Your task to perform on an android device: What's the weather going to be tomorrow? Image 0: 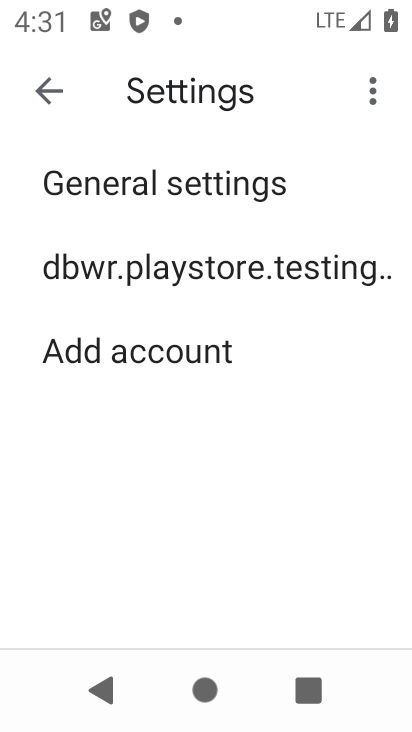
Step 0: press home button
Your task to perform on an android device: What's the weather going to be tomorrow? Image 1: 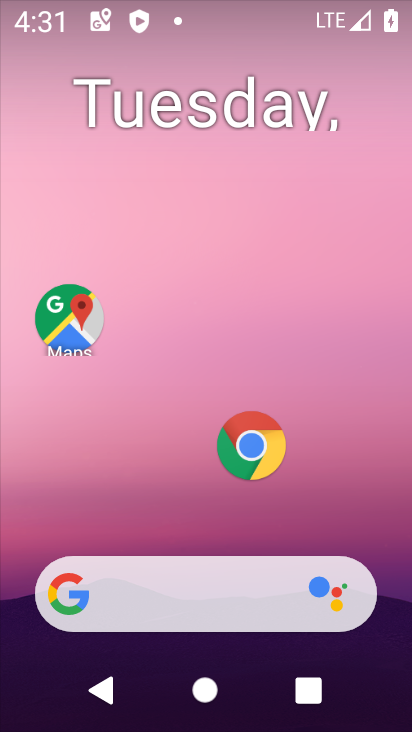
Step 1: click (212, 589)
Your task to perform on an android device: What's the weather going to be tomorrow? Image 2: 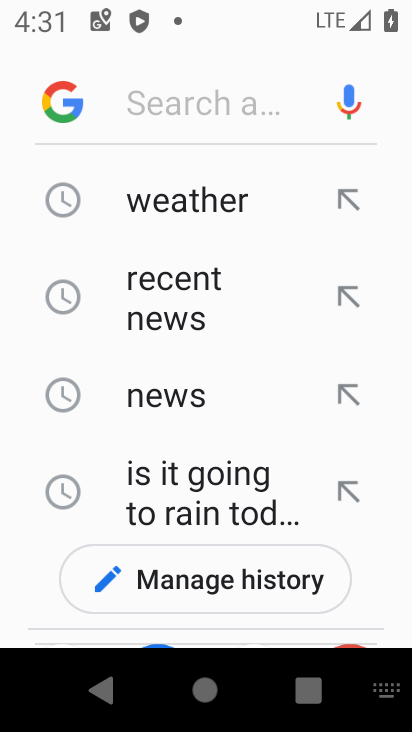
Step 2: click (170, 200)
Your task to perform on an android device: What's the weather going to be tomorrow? Image 3: 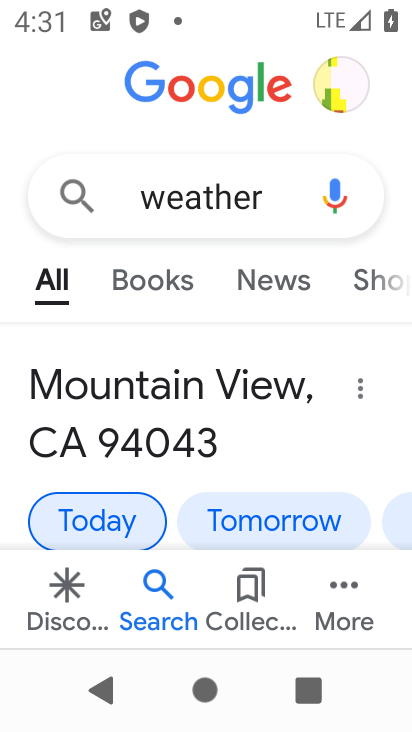
Step 3: drag from (283, 476) to (288, 217)
Your task to perform on an android device: What's the weather going to be tomorrow? Image 4: 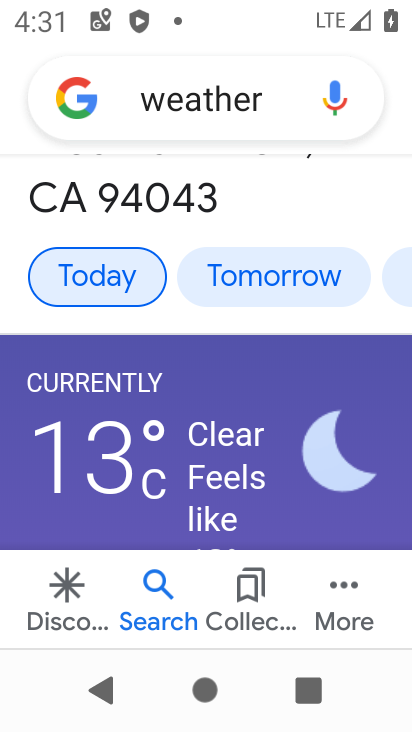
Step 4: click (266, 285)
Your task to perform on an android device: What's the weather going to be tomorrow? Image 5: 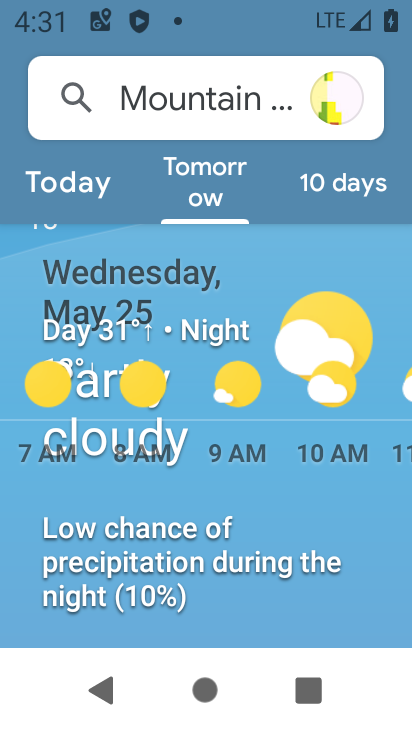
Step 5: task complete